Your task to perform on an android device: open a bookmark in the chrome app Image 0: 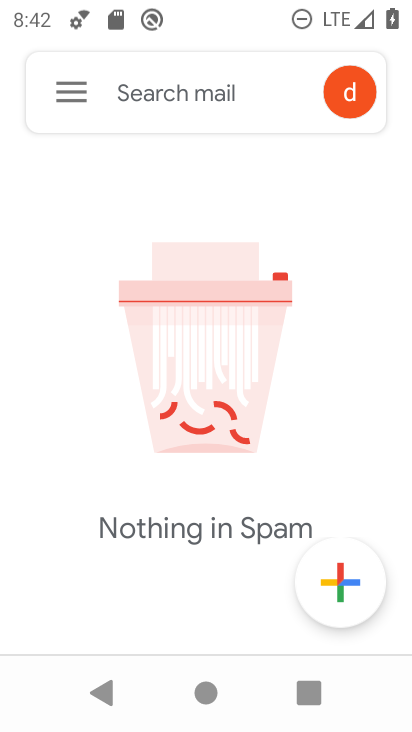
Step 0: press home button
Your task to perform on an android device: open a bookmark in the chrome app Image 1: 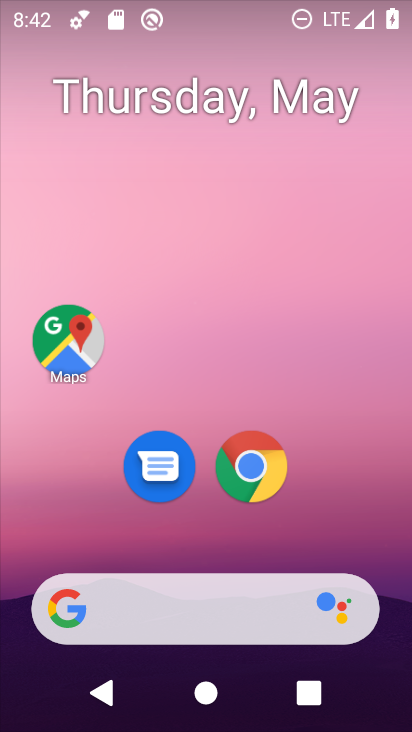
Step 1: click (259, 458)
Your task to perform on an android device: open a bookmark in the chrome app Image 2: 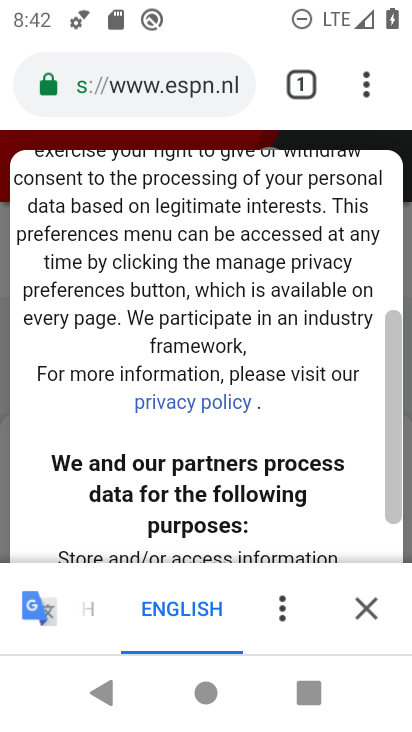
Step 2: click (367, 78)
Your task to perform on an android device: open a bookmark in the chrome app Image 3: 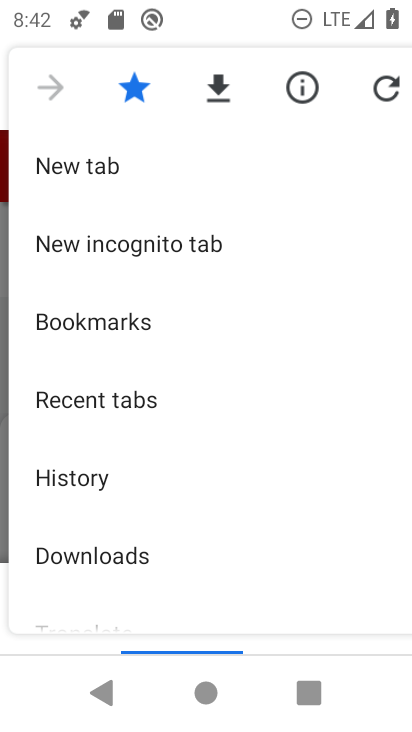
Step 3: click (108, 324)
Your task to perform on an android device: open a bookmark in the chrome app Image 4: 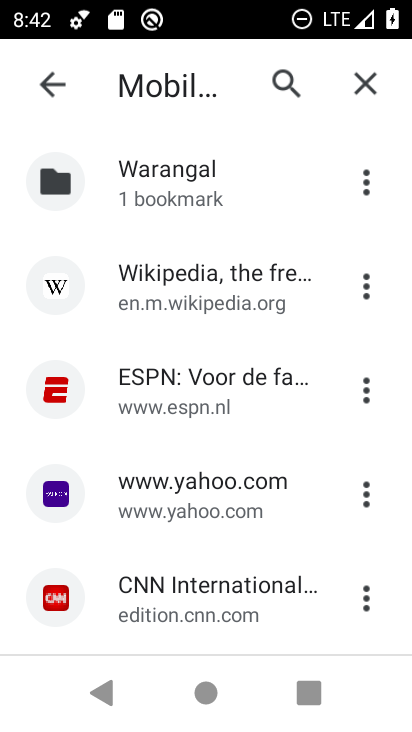
Step 4: click (175, 396)
Your task to perform on an android device: open a bookmark in the chrome app Image 5: 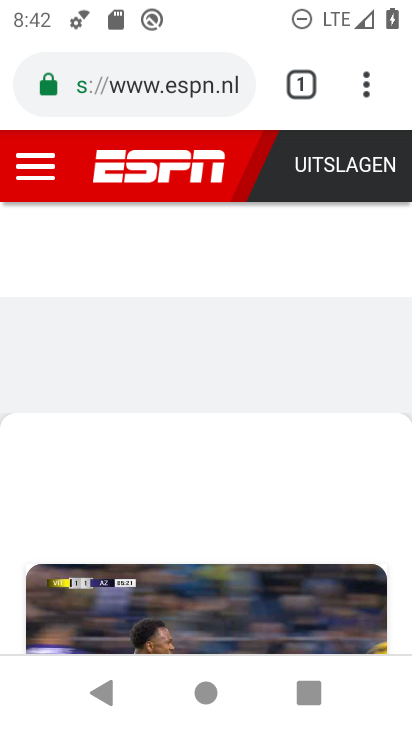
Step 5: task complete